Your task to perform on an android device: install app "Pandora - Music & Podcasts" Image 0: 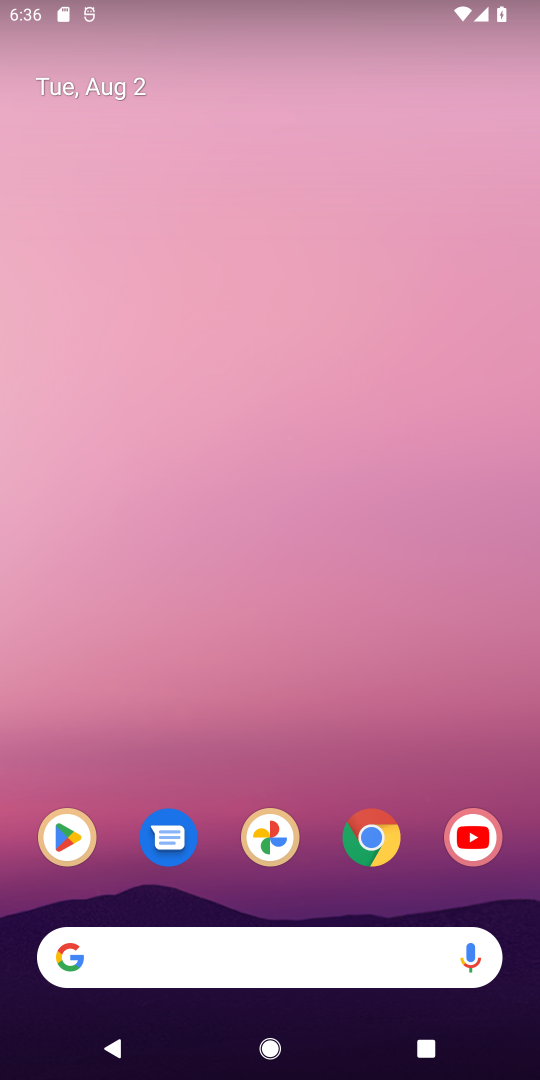
Step 0: click (66, 840)
Your task to perform on an android device: install app "Pandora - Music & Podcasts" Image 1: 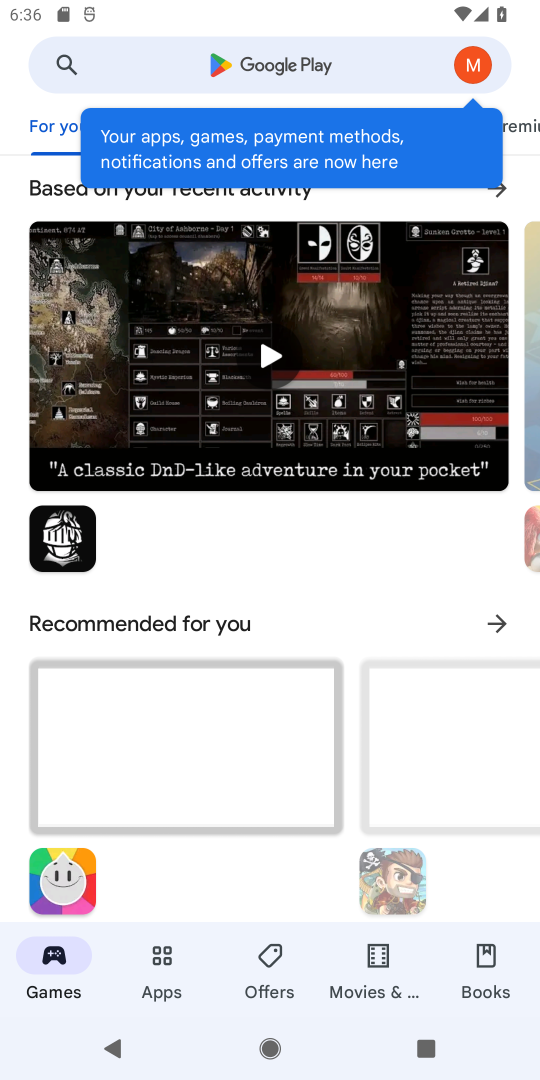
Step 1: click (179, 72)
Your task to perform on an android device: install app "Pandora - Music & Podcasts" Image 2: 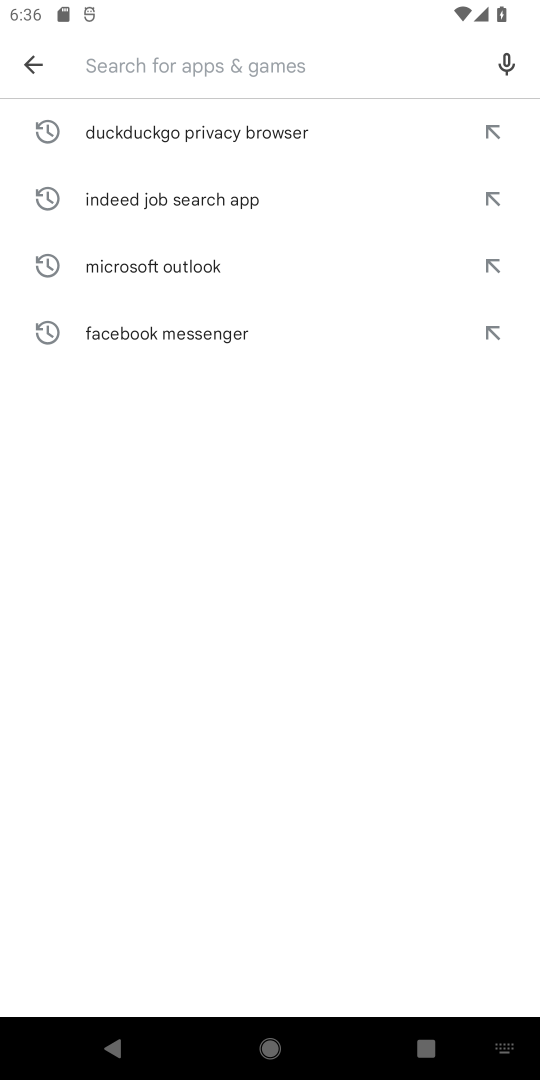
Step 2: type "Pandora - Music & Podcasts"
Your task to perform on an android device: install app "Pandora - Music & Podcasts" Image 3: 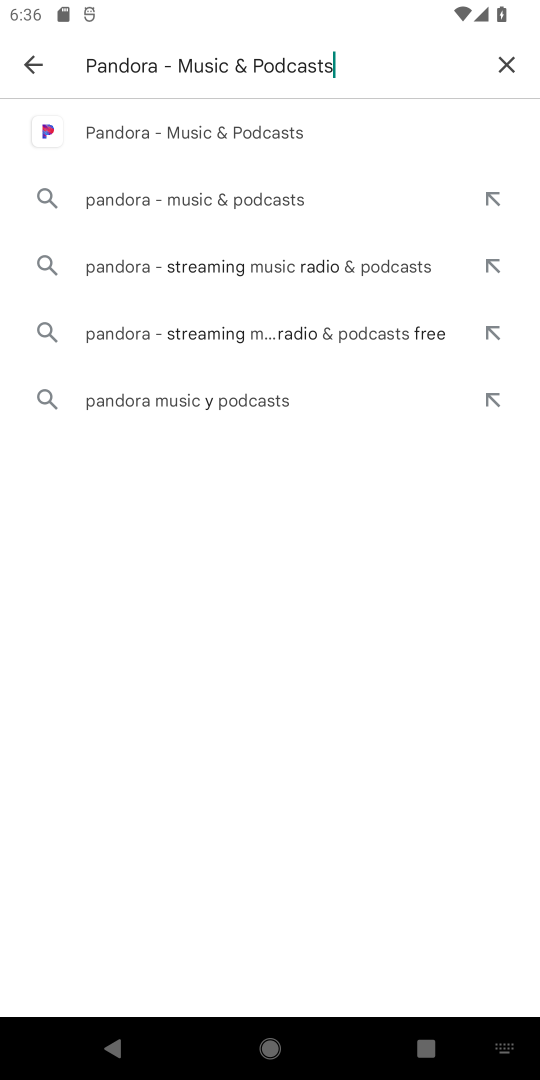
Step 3: click (164, 129)
Your task to perform on an android device: install app "Pandora - Music & Podcasts" Image 4: 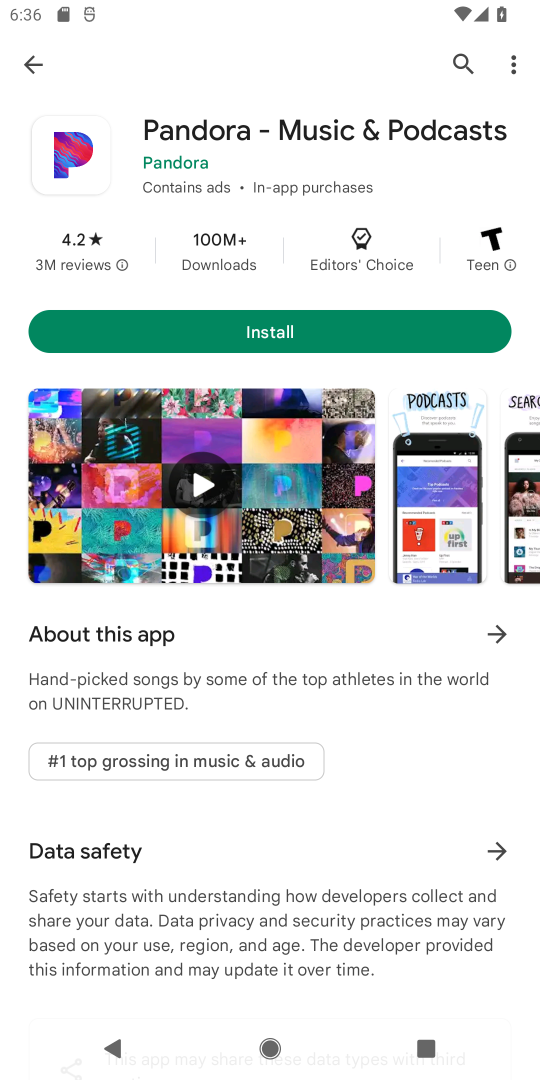
Step 4: click (263, 346)
Your task to perform on an android device: install app "Pandora - Music & Podcasts" Image 5: 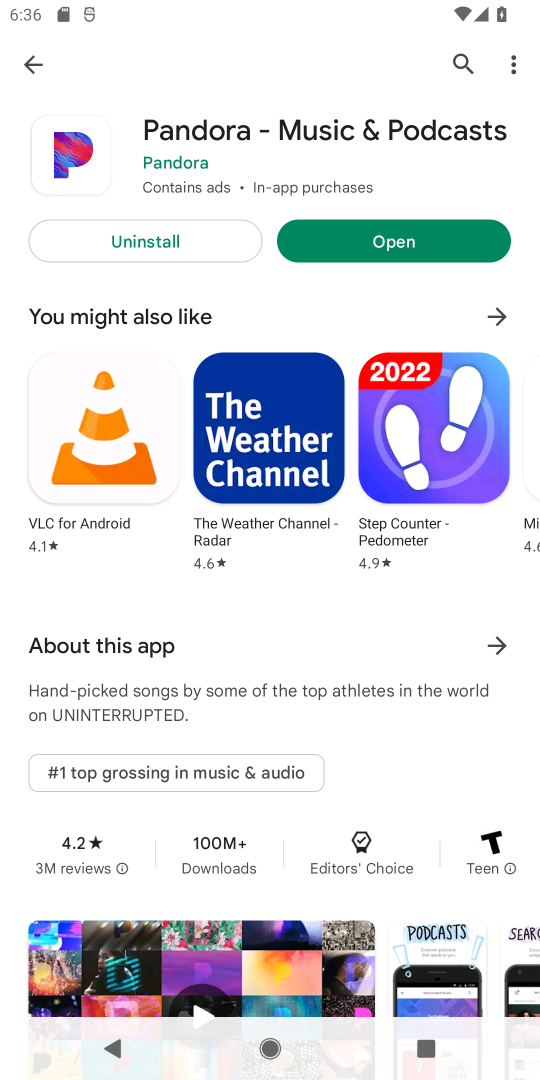
Step 5: task complete